Your task to perform on an android device: Set an alarm for 7pm Image 0: 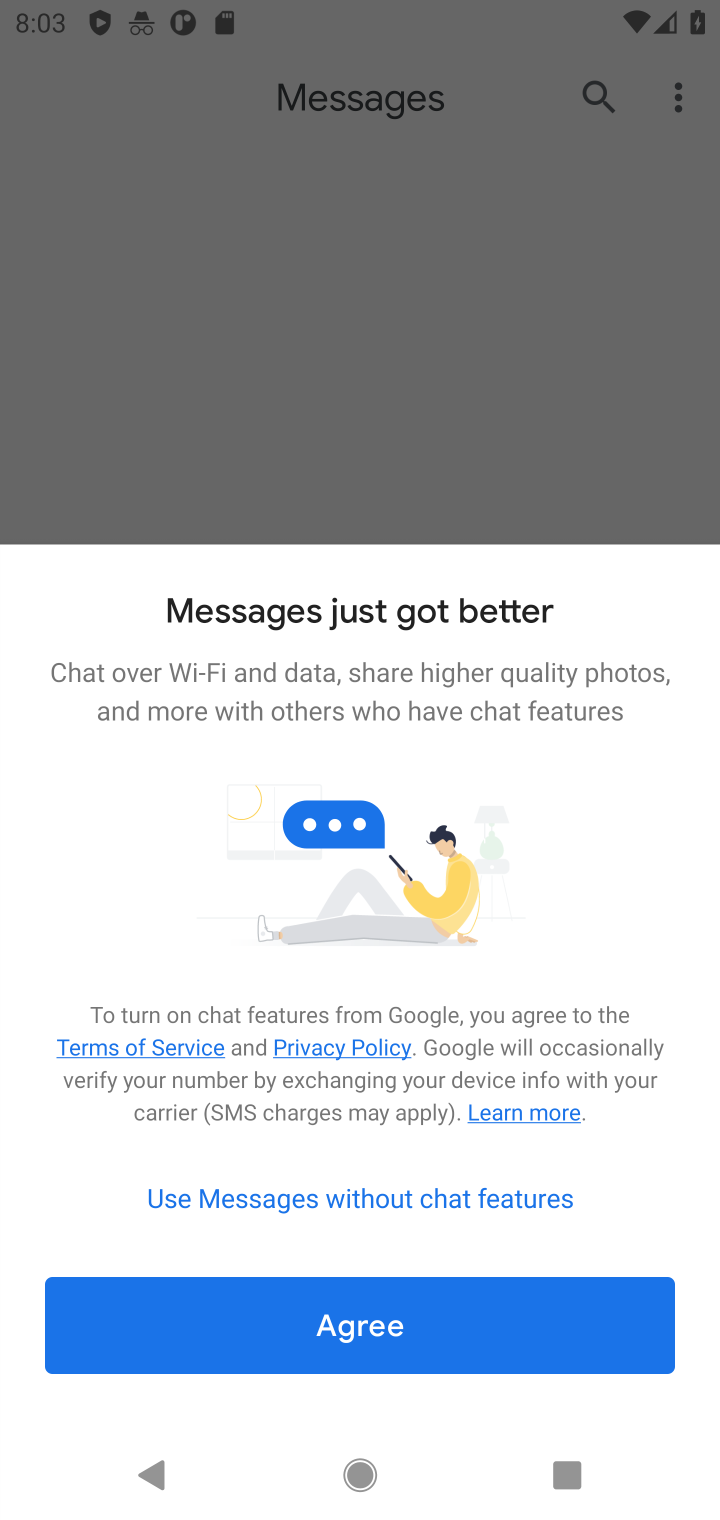
Step 0: press home button
Your task to perform on an android device: Set an alarm for 7pm Image 1: 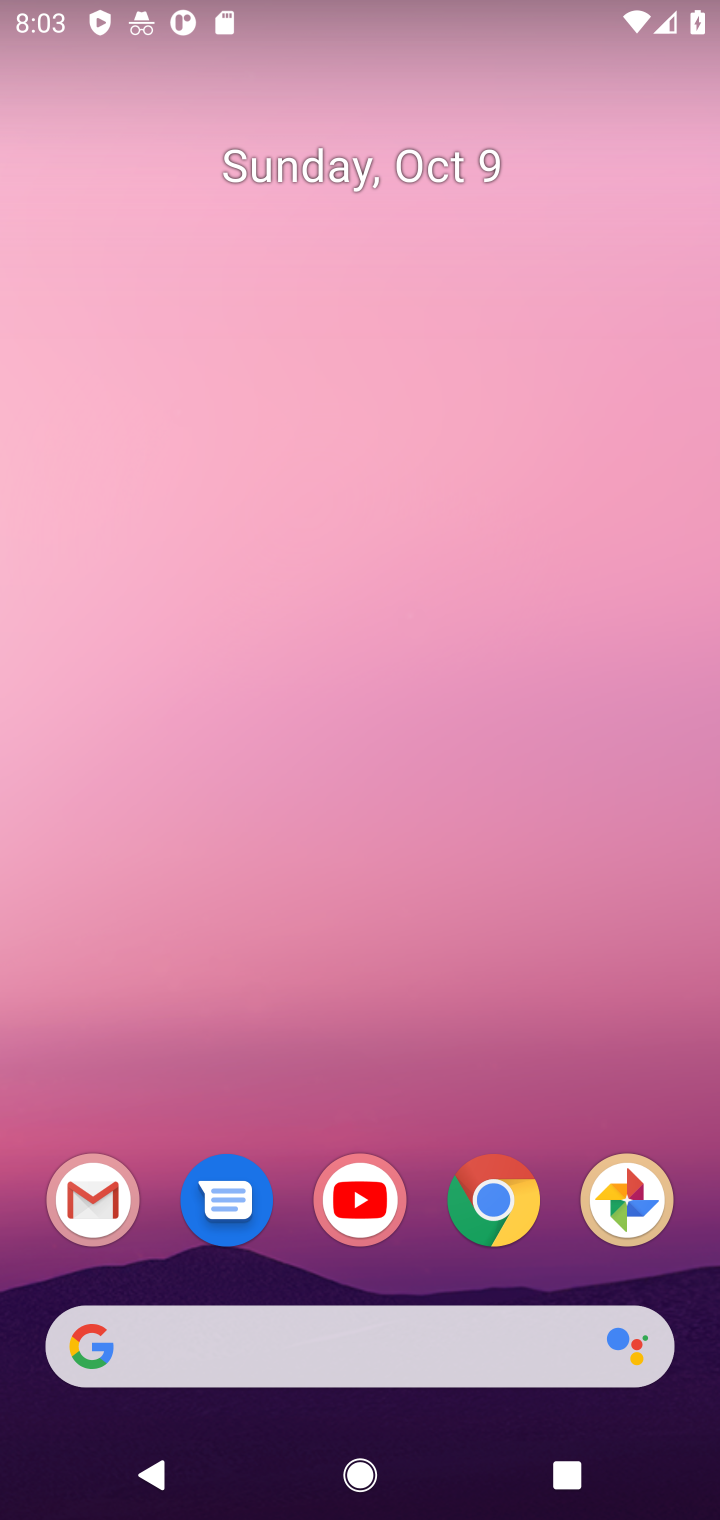
Step 1: drag from (503, 1069) to (469, 351)
Your task to perform on an android device: Set an alarm for 7pm Image 2: 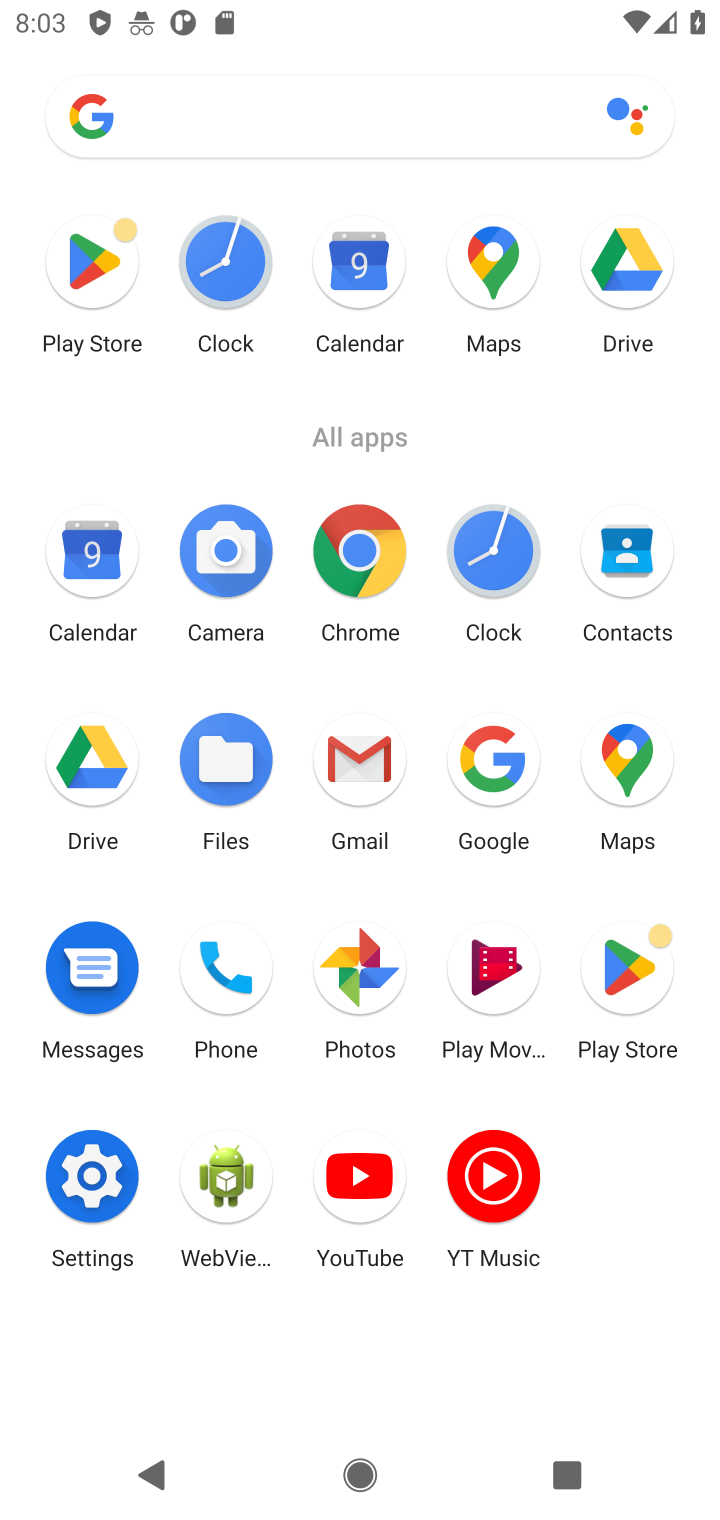
Step 2: click (490, 556)
Your task to perform on an android device: Set an alarm for 7pm Image 3: 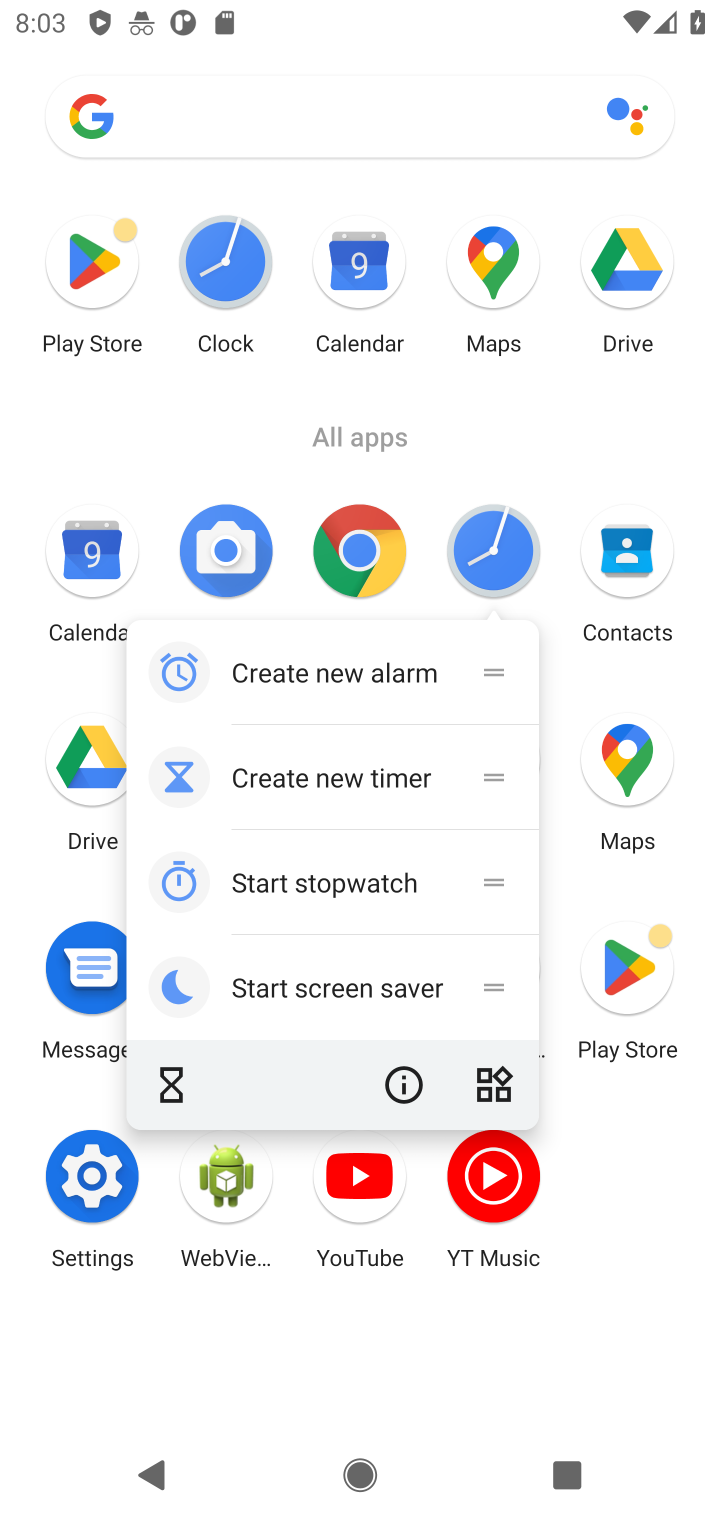
Step 3: click (491, 558)
Your task to perform on an android device: Set an alarm for 7pm Image 4: 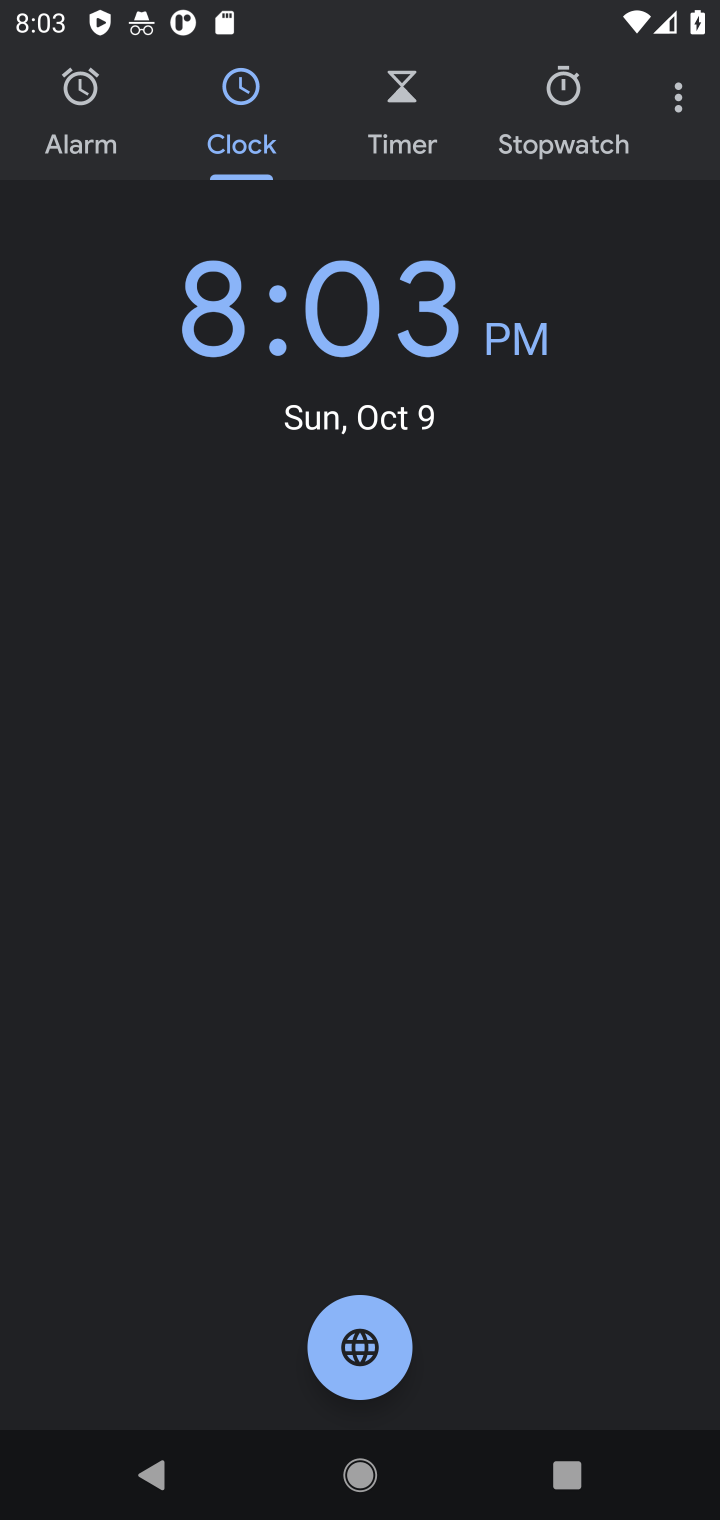
Step 4: click (106, 88)
Your task to perform on an android device: Set an alarm for 7pm Image 5: 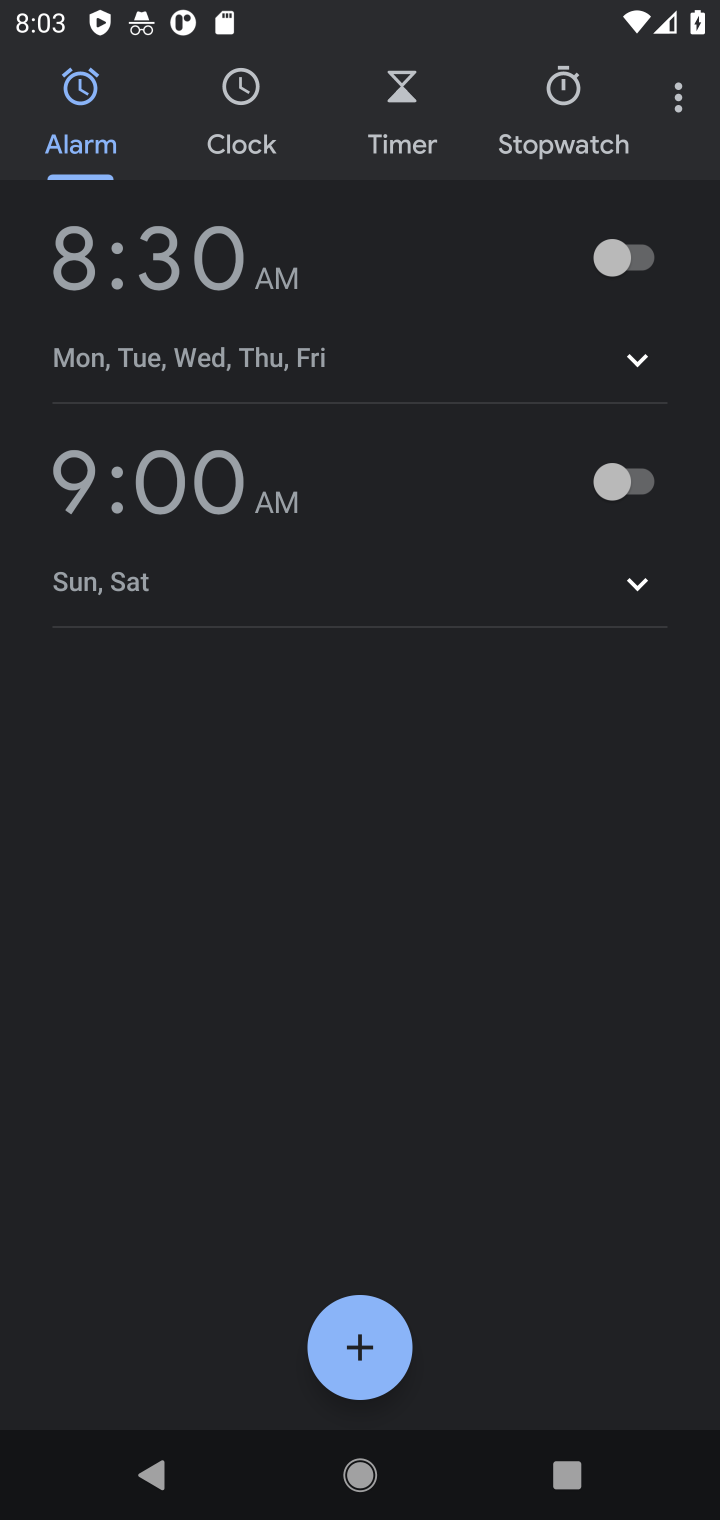
Step 5: click (352, 1355)
Your task to perform on an android device: Set an alarm for 7pm Image 6: 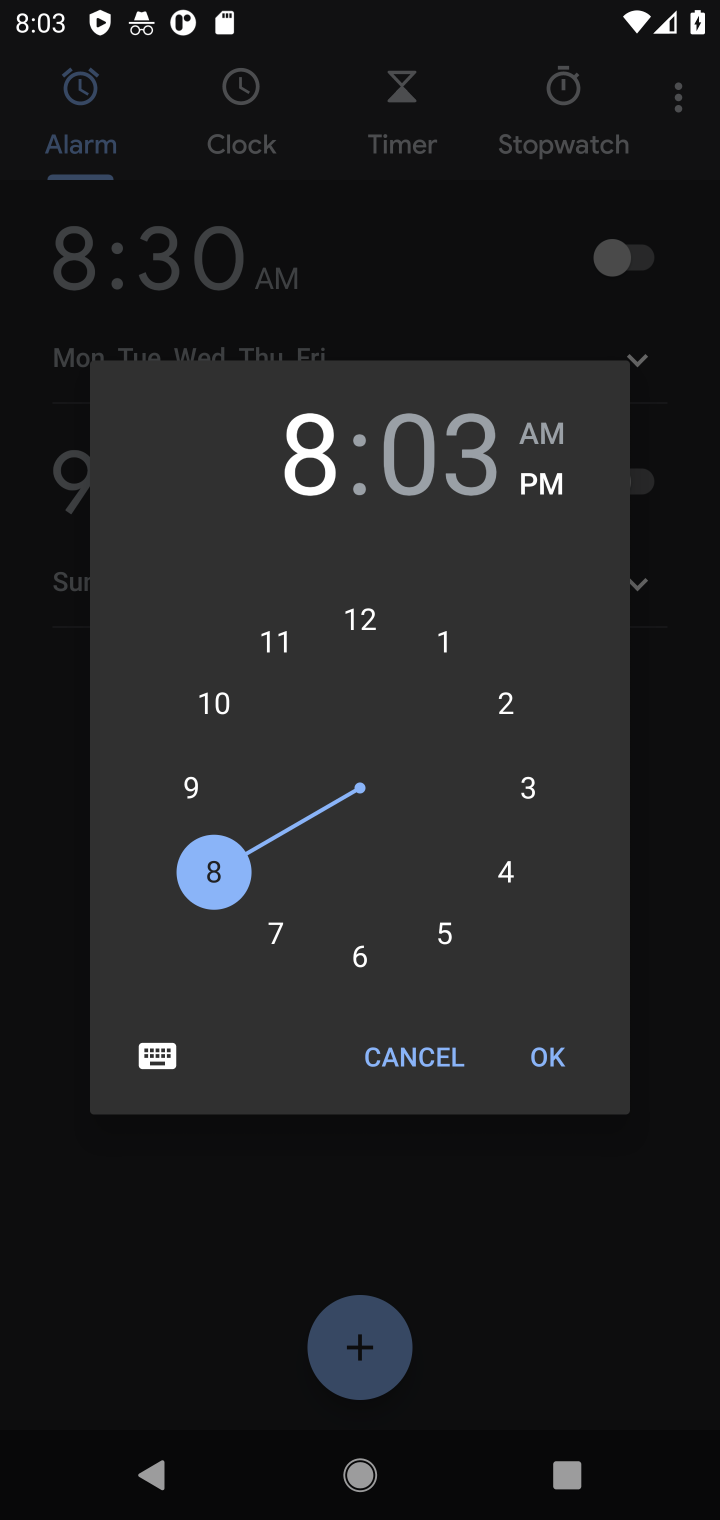
Step 6: click (279, 924)
Your task to perform on an android device: Set an alarm for 7pm Image 7: 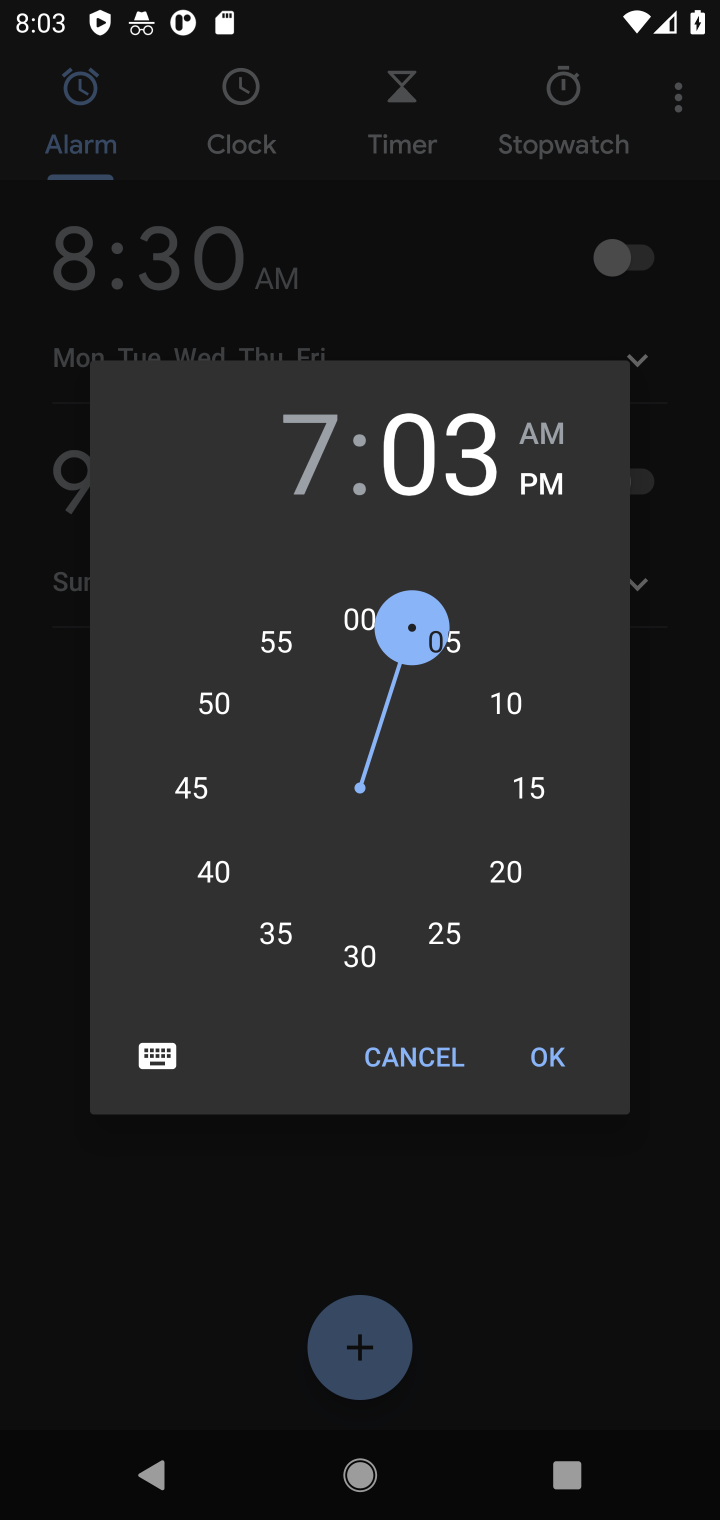
Step 7: click (369, 619)
Your task to perform on an android device: Set an alarm for 7pm Image 8: 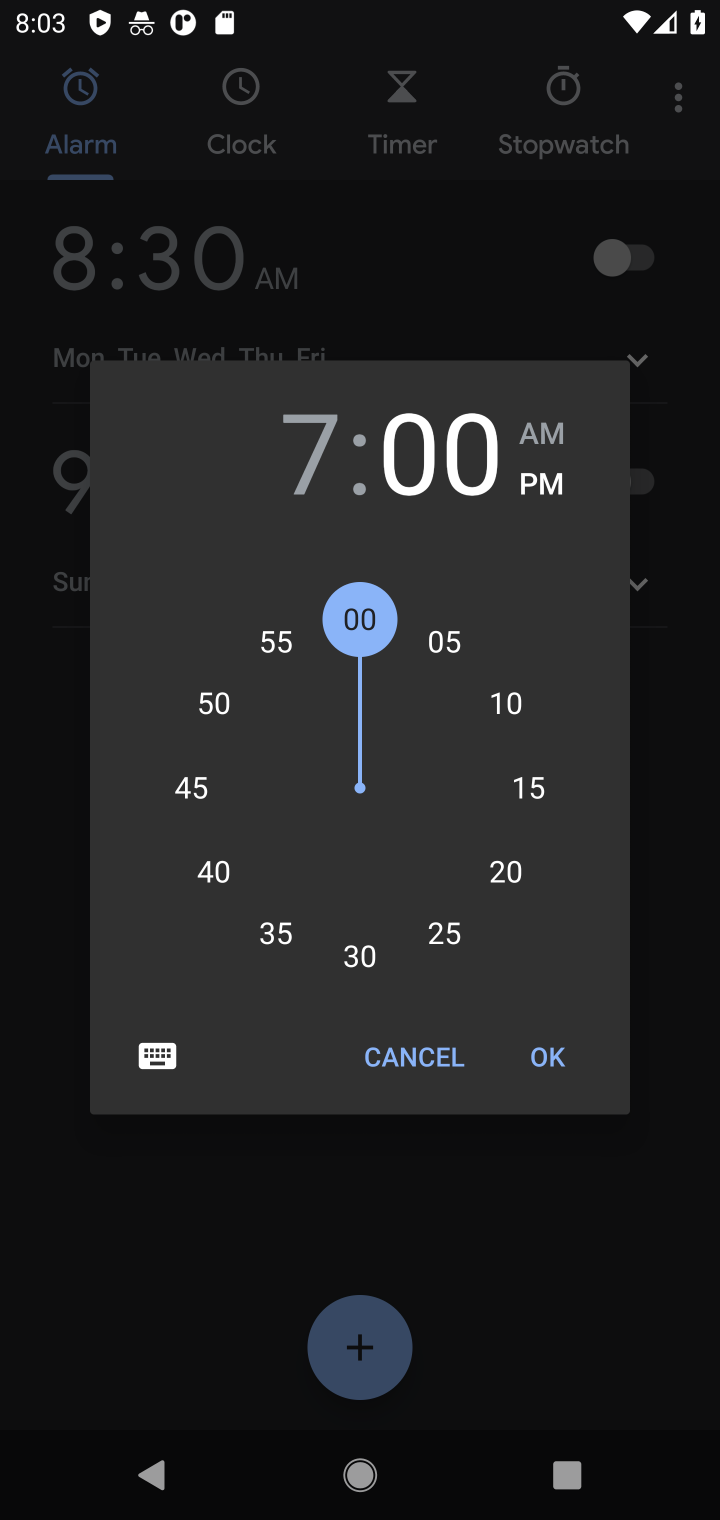
Step 8: click (547, 1053)
Your task to perform on an android device: Set an alarm for 7pm Image 9: 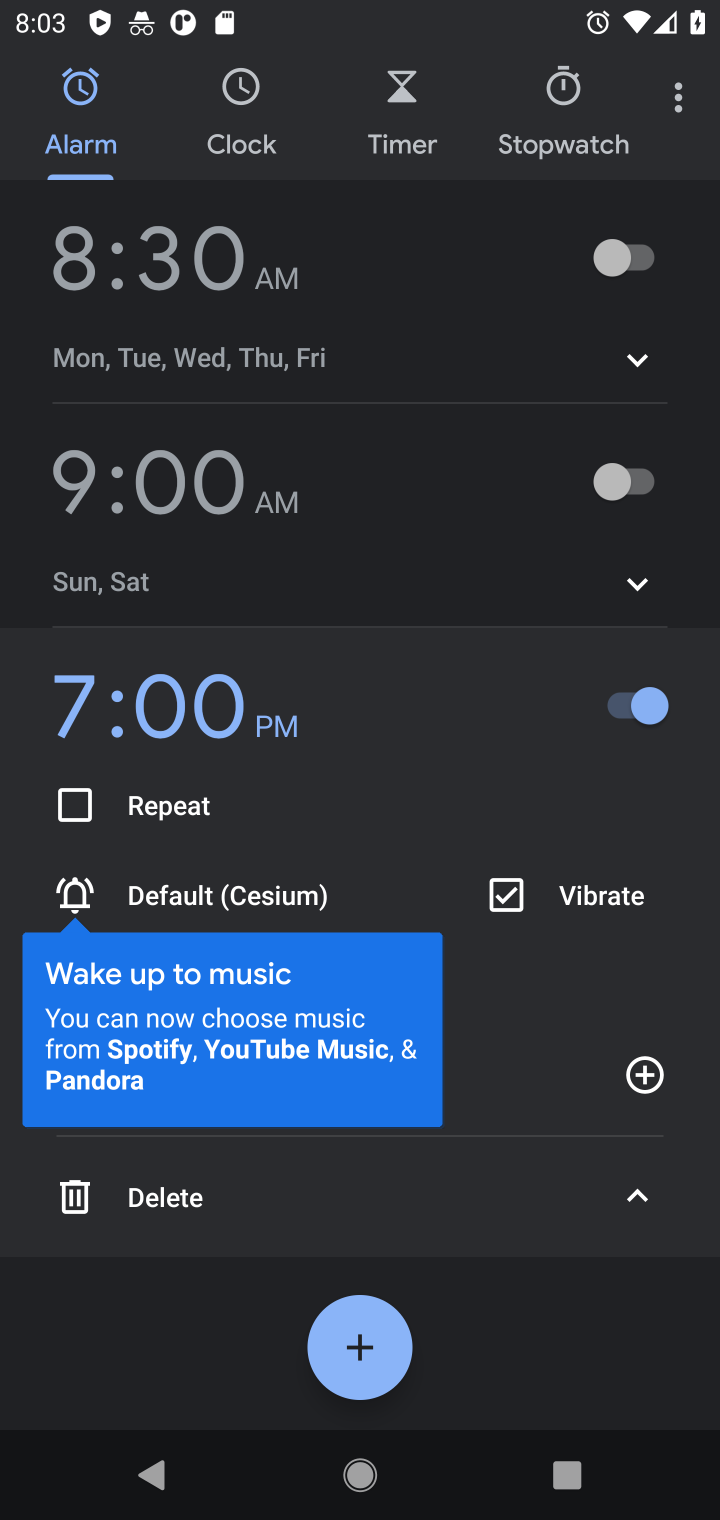
Step 9: task complete